Your task to perform on an android device: change the clock display to analog Image 0: 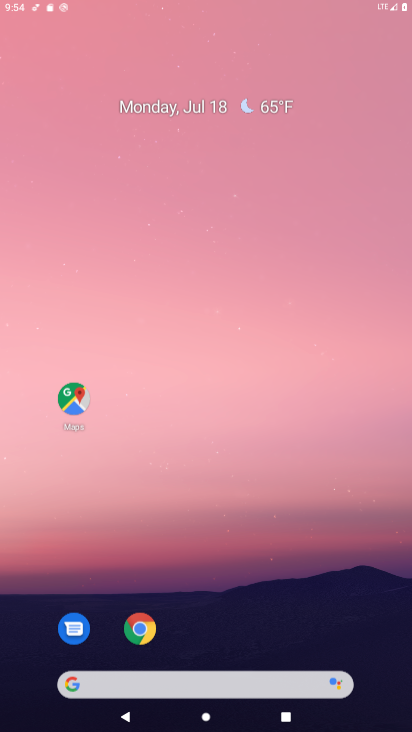
Step 0: click (141, 628)
Your task to perform on an android device: change the clock display to analog Image 1: 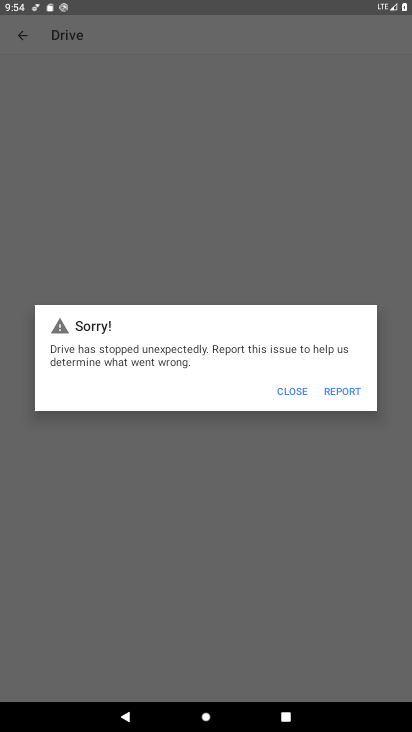
Step 1: click (139, 626)
Your task to perform on an android device: change the clock display to analog Image 2: 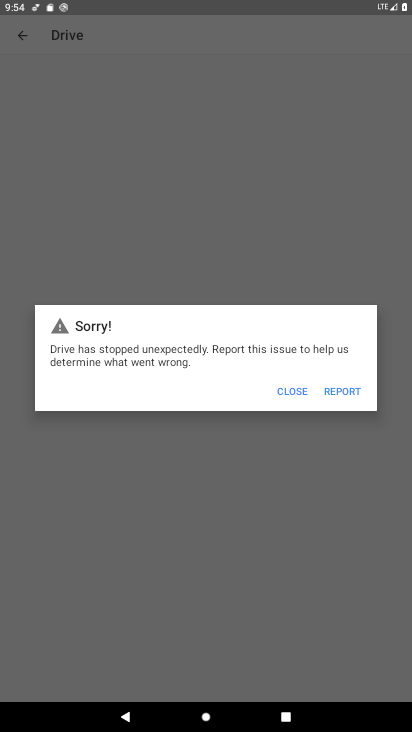
Step 2: press home button
Your task to perform on an android device: change the clock display to analog Image 3: 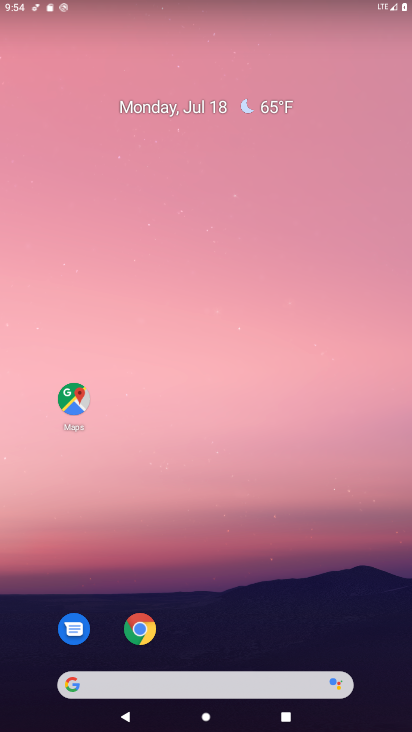
Step 3: drag from (241, 558) to (224, 112)
Your task to perform on an android device: change the clock display to analog Image 4: 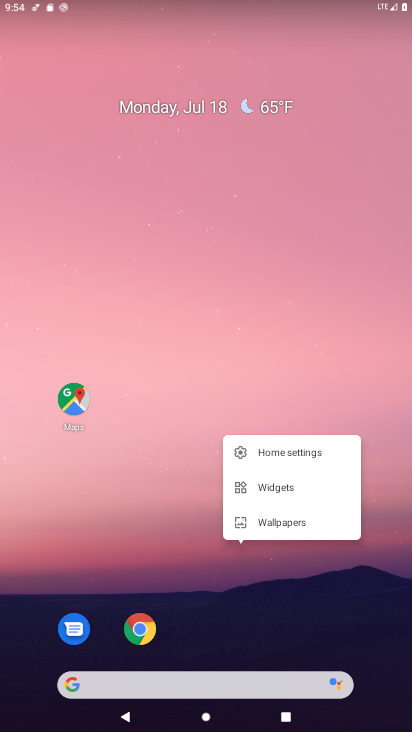
Step 4: click (151, 536)
Your task to perform on an android device: change the clock display to analog Image 5: 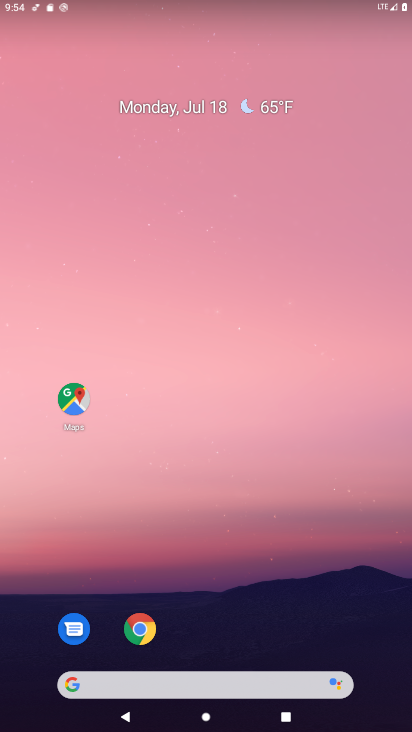
Step 5: drag from (242, 612) to (255, 2)
Your task to perform on an android device: change the clock display to analog Image 6: 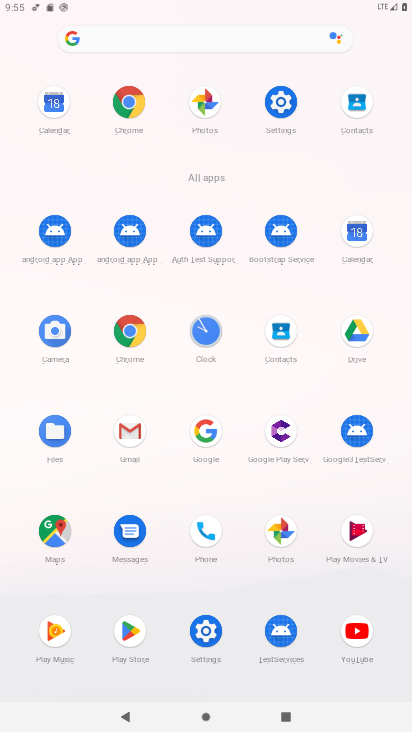
Step 6: click (207, 326)
Your task to perform on an android device: change the clock display to analog Image 7: 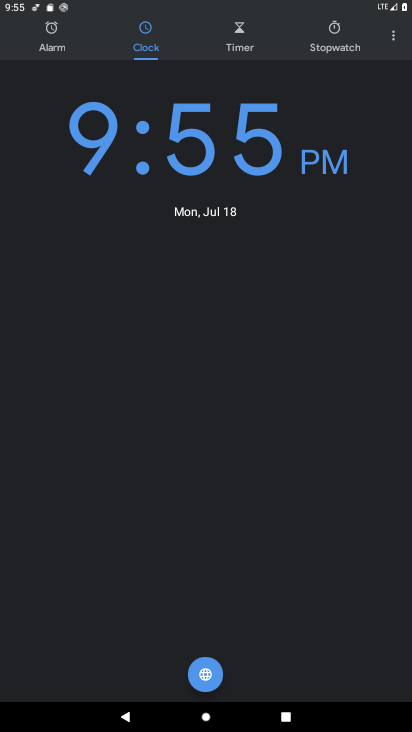
Step 7: click (393, 31)
Your task to perform on an android device: change the clock display to analog Image 8: 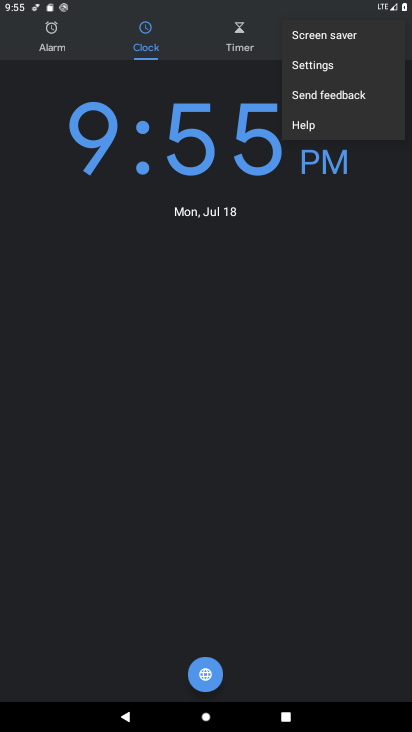
Step 8: click (323, 56)
Your task to perform on an android device: change the clock display to analog Image 9: 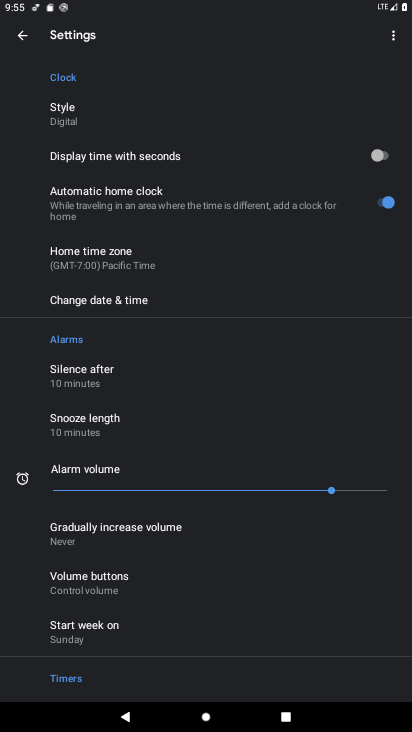
Step 9: click (65, 108)
Your task to perform on an android device: change the clock display to analog Image 10: 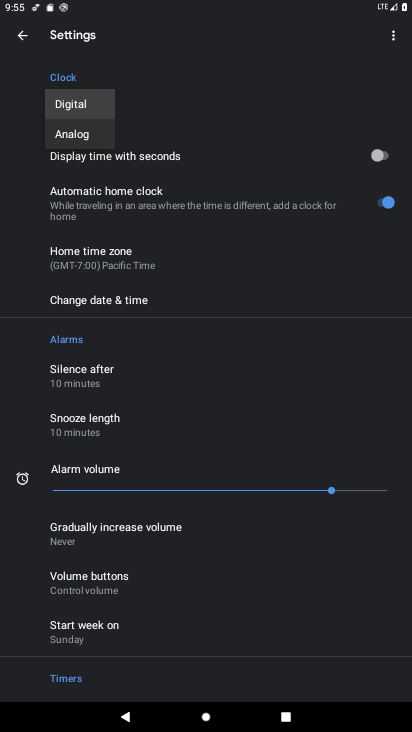
Step 10: click (75, 137)
Your task to perform on an android device: change the clock display to analog Image 11: 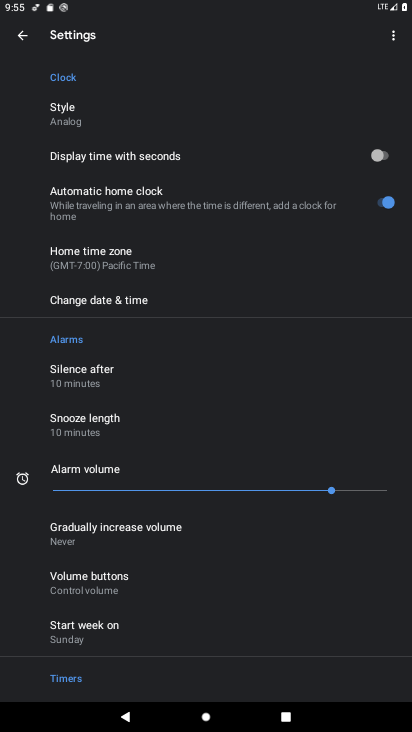
Step 11: task complete